Your task to perform on an android device: turn on translation in the chrome app Image 0: 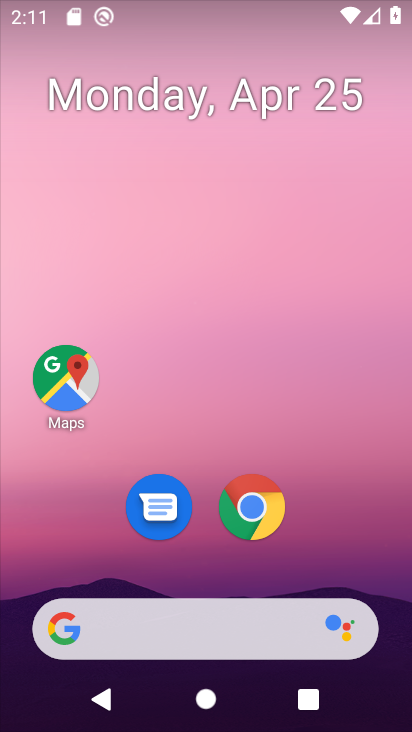
Step 0: drag from (131, 640) to (312, 149)
Your task to perform on an android device: turn on translation in the chrome app Image 1: 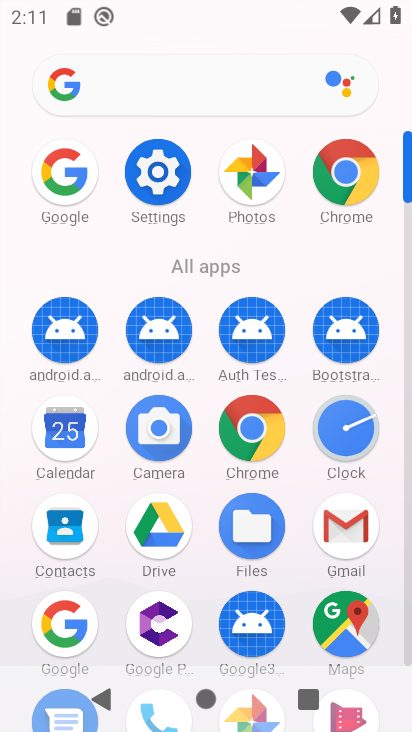
Step 1: click (342, 186)
Your task to perform on an android device: turn on translation in the chrome app Image 2: 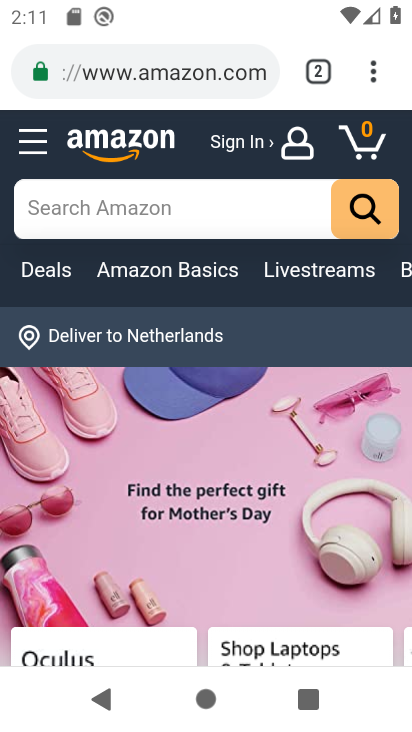
Step 2: drag from (372, 84) to (107, 502)
Your task to perform on an android device: turn on translation in the chrome app Image 3: 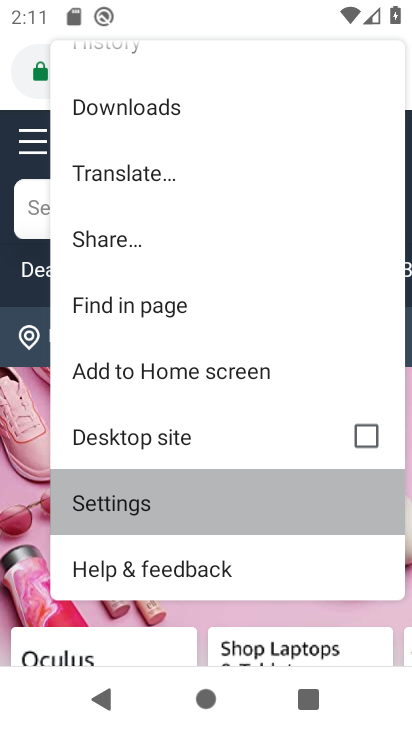
Step 3: click (107, 502)
Your task to perform on an android device: turn on translation in the chrome app Image 4: 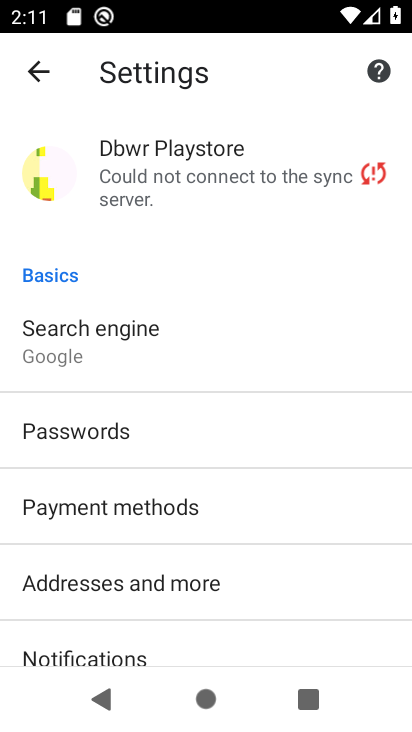
Step 4: drag from (152, 619) to (283, 374)
Your task to perform on an android device: turn on translation in the chrome app Image 5: 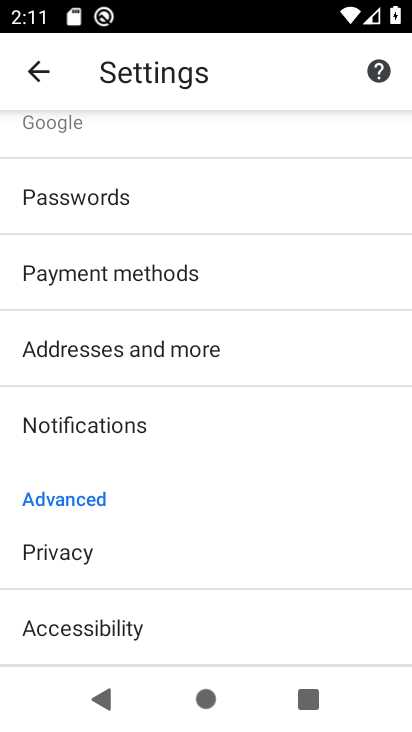
Step 5: drag from (155, 624) to (276, 324)
Your task to perform on an android device: turn on translation in the chrome app Image 6: 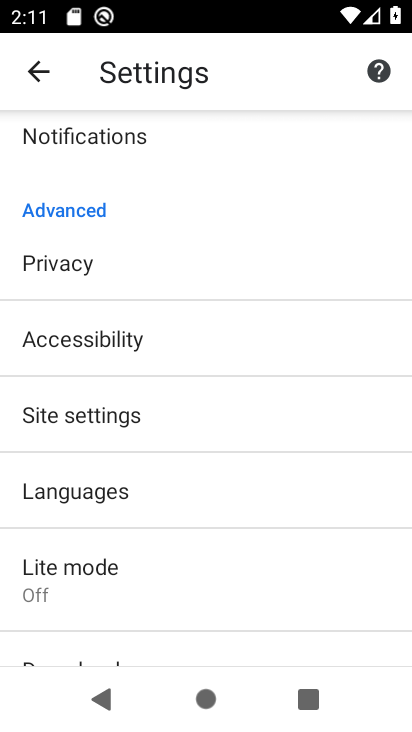
Step 6: click (124, 498)
Your task to perform on an android device: turn on translation in the chrome app Image 7: 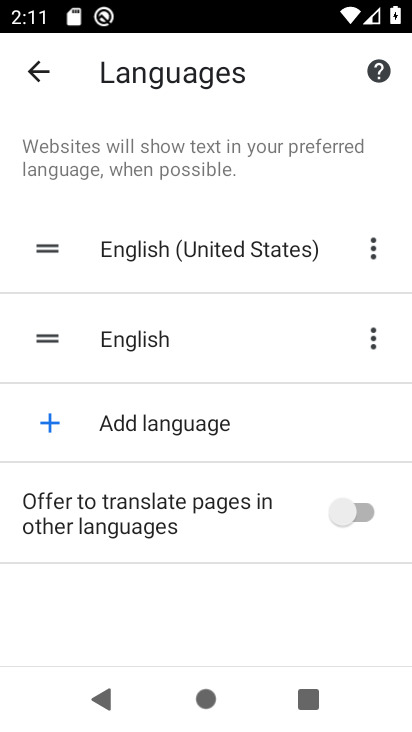
Step 7: click (366, 507)
Your task to perform on an android device: turn on translation in the chrome app Image 8: 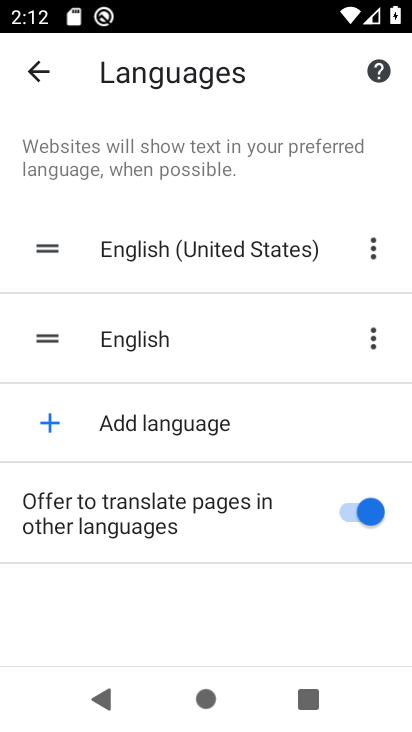
Step 8: task complete